Your task to perform on an android device: delete the emails in spam in the gmail app Image 0: 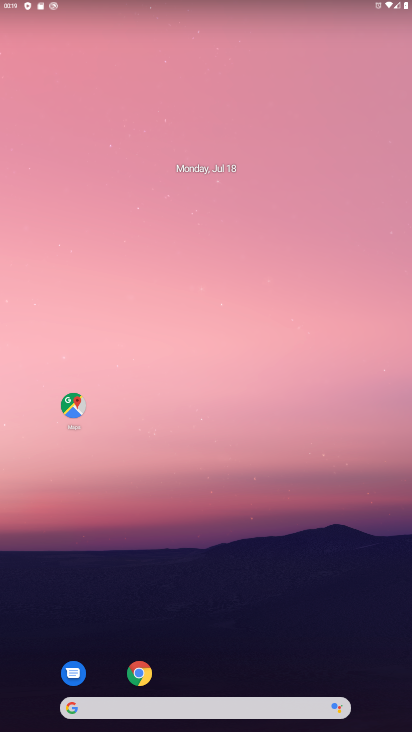
Step 0: drag from (296, 663) to (226, 94)
Your task to perform on an android device: delete the emails in spam in the gmail app Image 1: 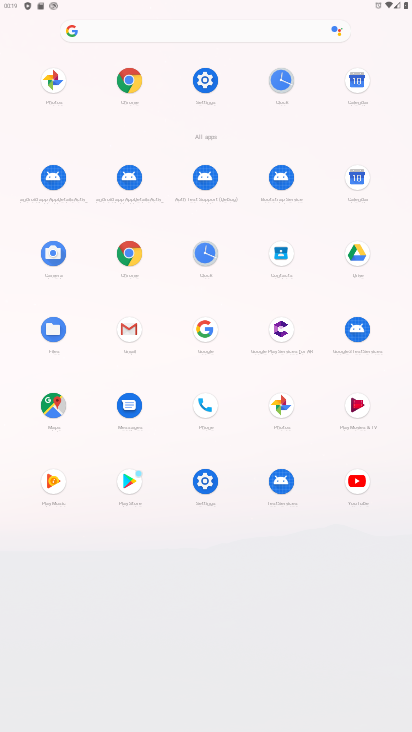
Step 1: click (124, 328)
Your task to perform on an android device: delete the emails in spam in the gmail app Image 2: 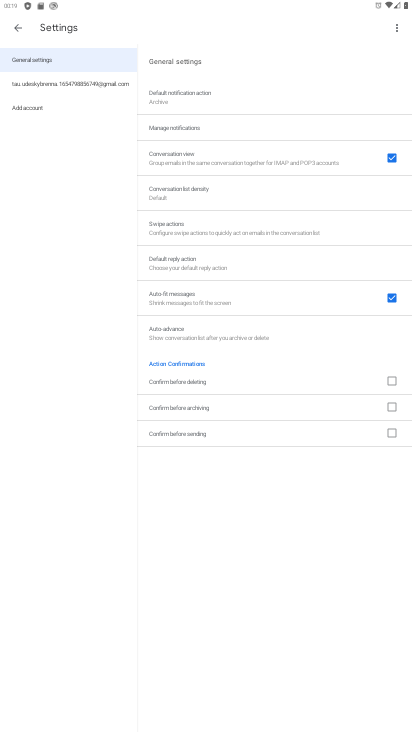
Step 2: task complete